Your task to perform on an android device: Show me popular games on the Play Store Image 0: 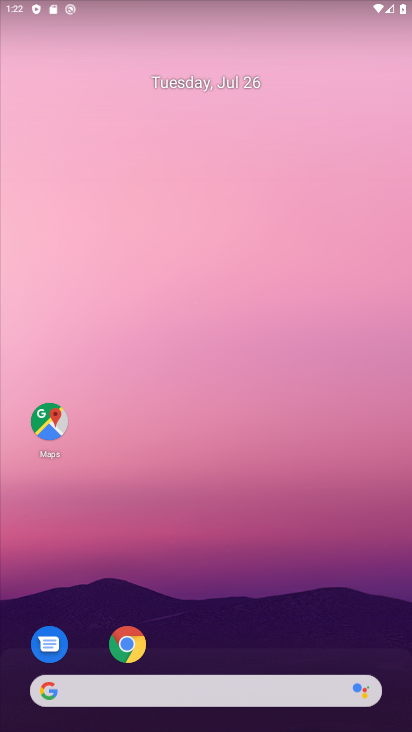
Step 0: drag from (308, 600) to (335, 142)
Your task to perform on an android device: Show me popular games on the Play Store Image 1: 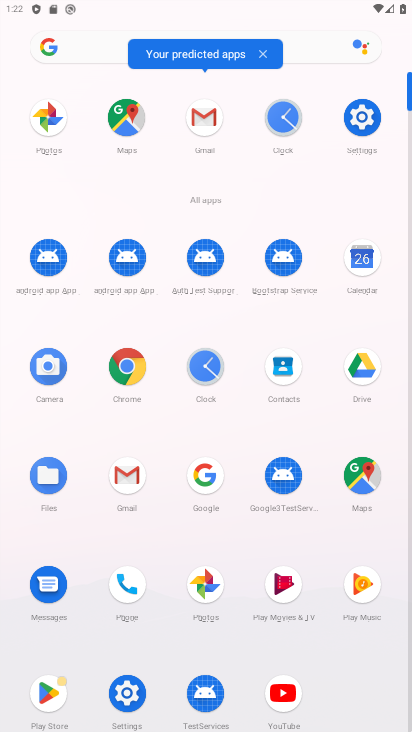
Step 1: drag from (370, 649) to (390, 482)
Your task to perform on an android device: Show me popular games on the Play Store Image 2: 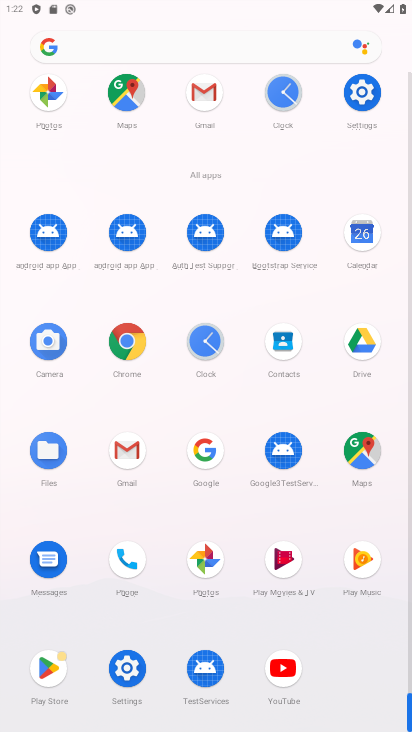
Step 2: drag from (374, 645) to (368, 491)
Your task to perform on an android device: Show me popular games on the Play Store Image 3: 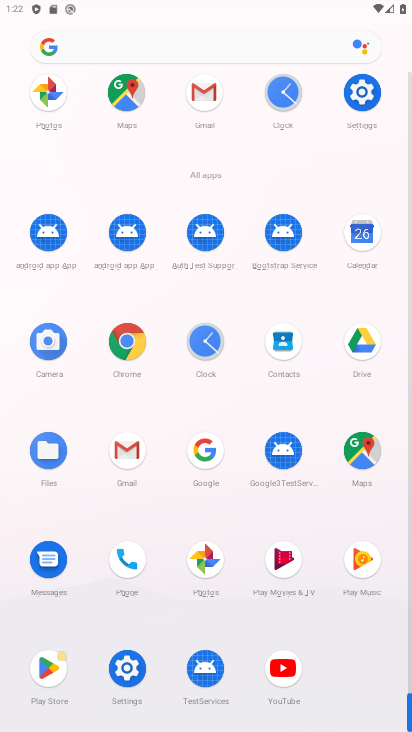
Step 3: click (39, 676)
Your task to perform on an android device: Show me popular games on the Play Store Image 4: 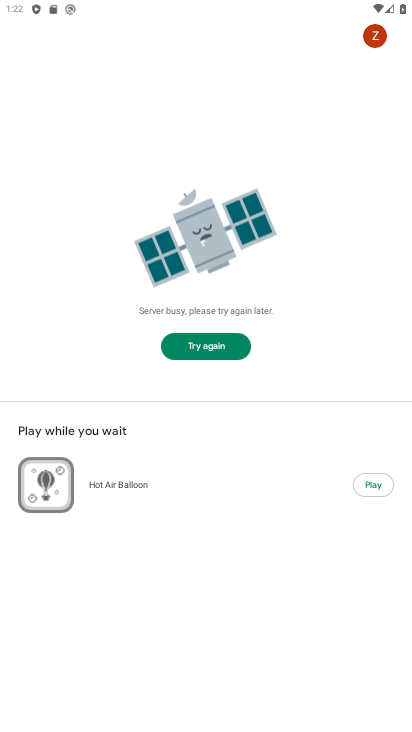
Step 4: task complete